Your task to perform on an android device: check the backup settings in the google photos Image 0: 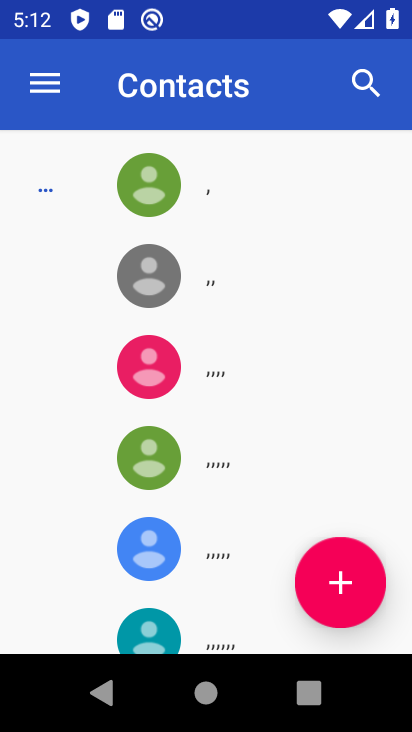
Step 0: press home button
Your task to perform on an android device: check the backup settings in the google photos Image 1: 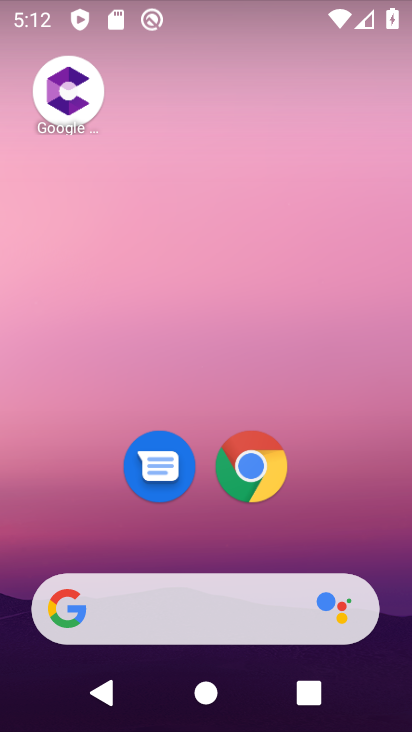
Step 1: click (363, 139)
Your task to perform on an android device: check the backup settings in the google photos Image 2: 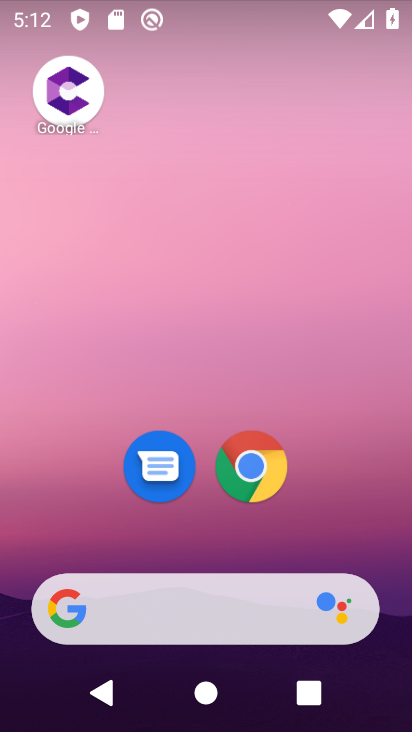
Step 2: drag from (329, 509) to (282, 80)
Your task to perform on an android device: check the backup settings in the google photos Image 3: 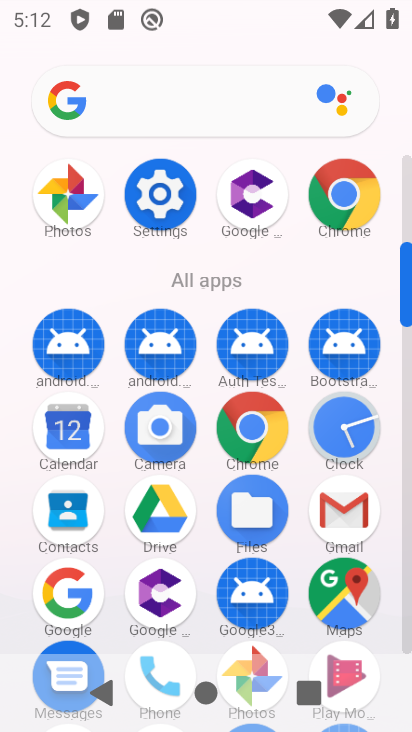
Step 3: click (72, 204)
Your task to perform on an android device: check the backup settings in the google photos Image 4: 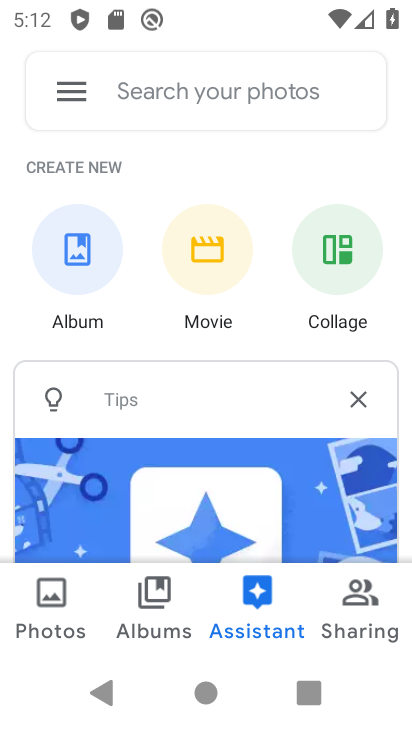
Step 4: click (74, 88)
Your task to perform on an android device: check the backup settings in the google photos Image 5: 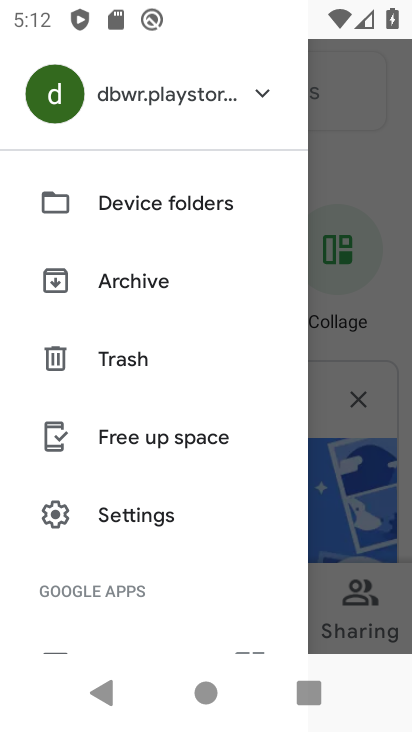
Step 5: click (144, 511)
Your task to perform on an android device: check the backup settings in the google photos Image 6: 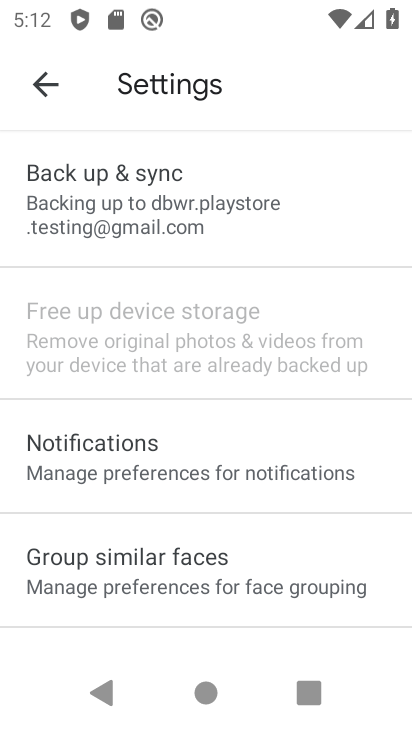
Step 6: click (186, 182)
Your task to perform on an android device: check the backup settings in the google photos Image 7: 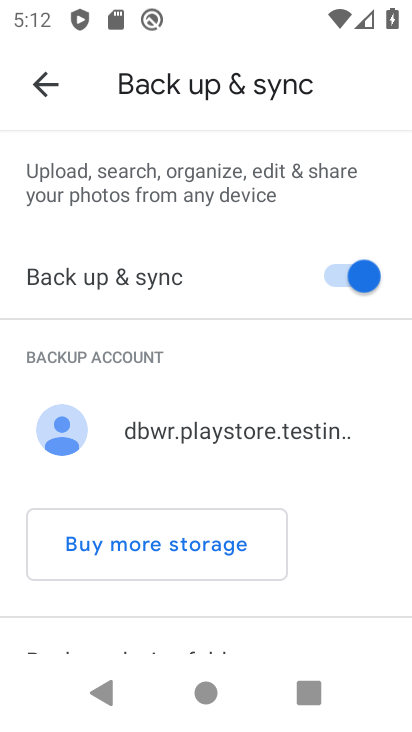
Step 7: task complete